Your task to perform on an android device: Open the calendar app, open the side menu, and click the "Day" option Image 0: 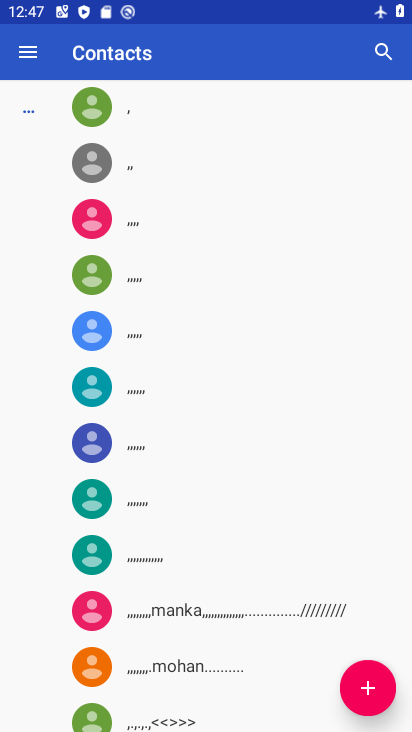
Step 0: press home button
Your task to perform on an android device: Open the calendar app, open the side menu, and click the "Day" option Image 1: 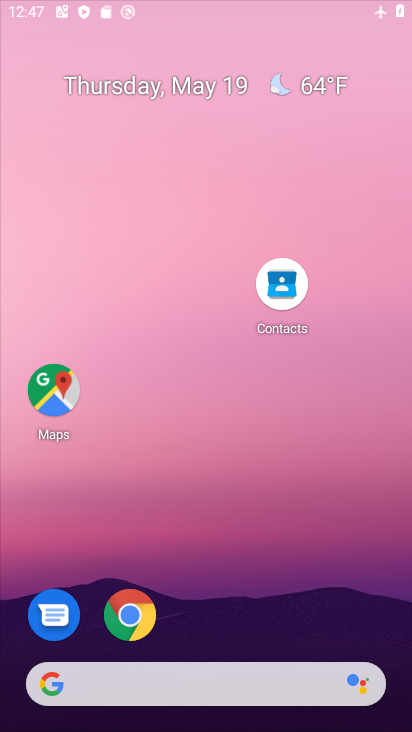
Step 1: drag from (198, 643) to (200, 268)
Your task to perform on an android device: Open the calendar app, open the side menu, and click the "Day" option Image 2: 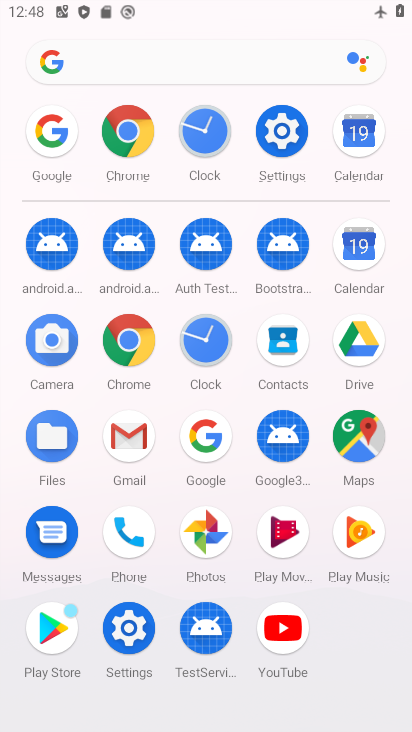
Step 2: click (370, 261)
Your task to perform on an android device: Open the calendar app, open the side menu, and click the "Day" option Image 3: 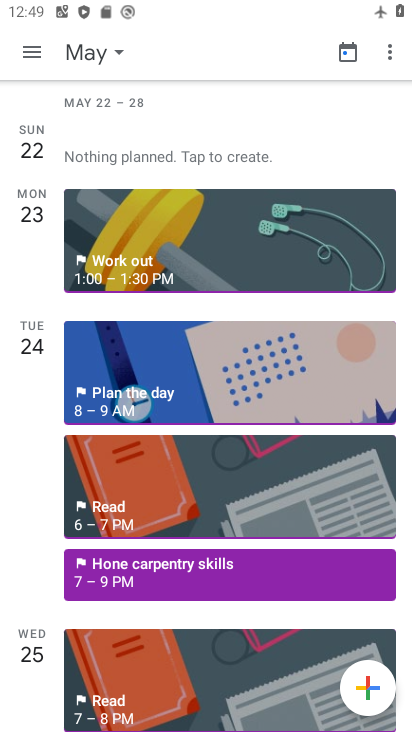
Step 3: click (38, 56)
Your task to perform on an android device: Open the calendar app, open the side menu, and click the "Day" option Image 4: 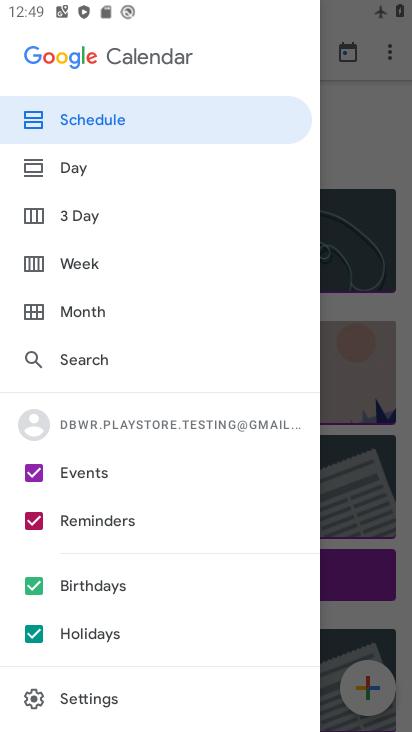
Step 4: click (137, 159)
Your task to perform on an android device: Open the calendar app, open the side menu, and click the "Day" option Image 5: 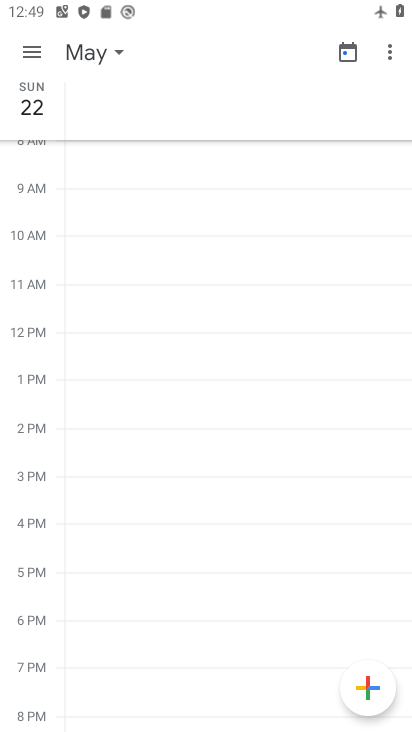
Step 5: task complete